Your task to perform on an android device: Open calendar and show me the fourth week of next month Image 0: 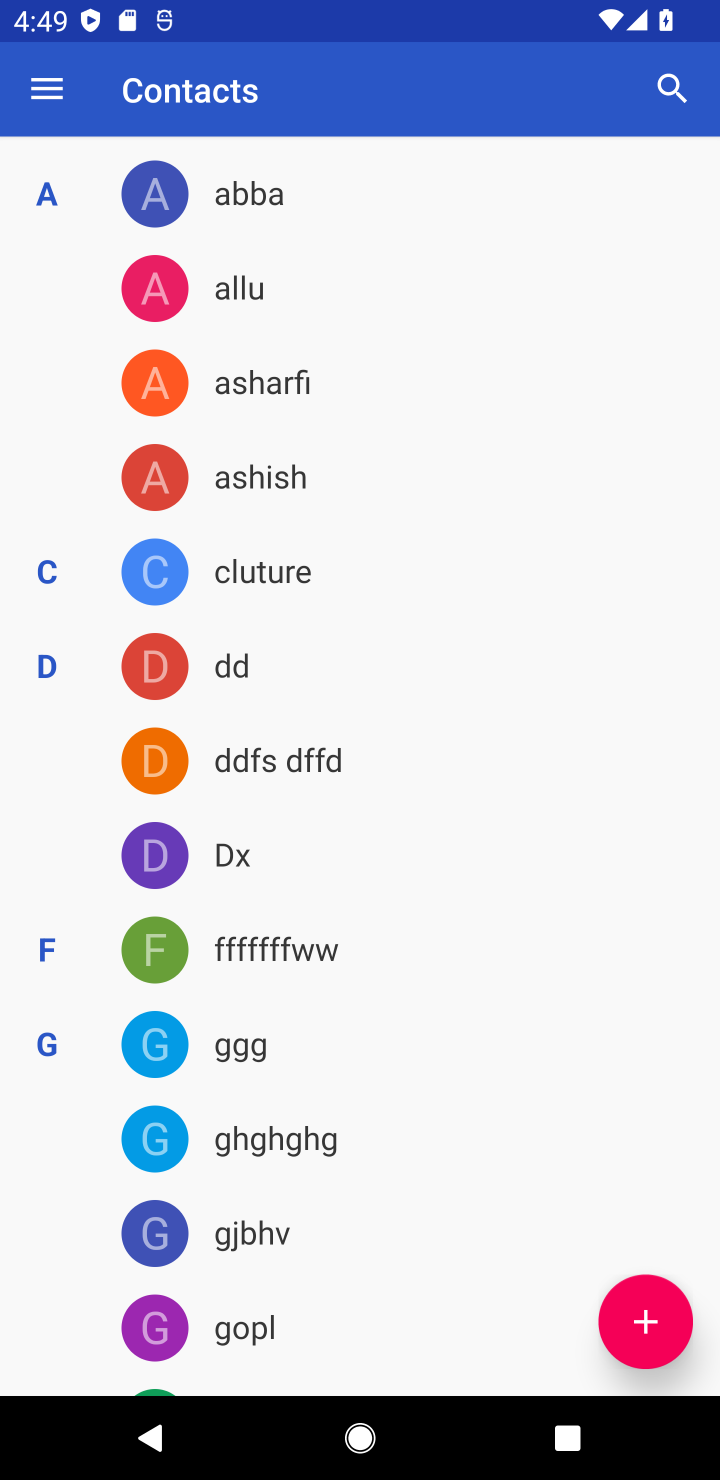
Step 0: press home button
Your task to perform on an android device: Open calendar and show me the fourth week of next month Image 1: 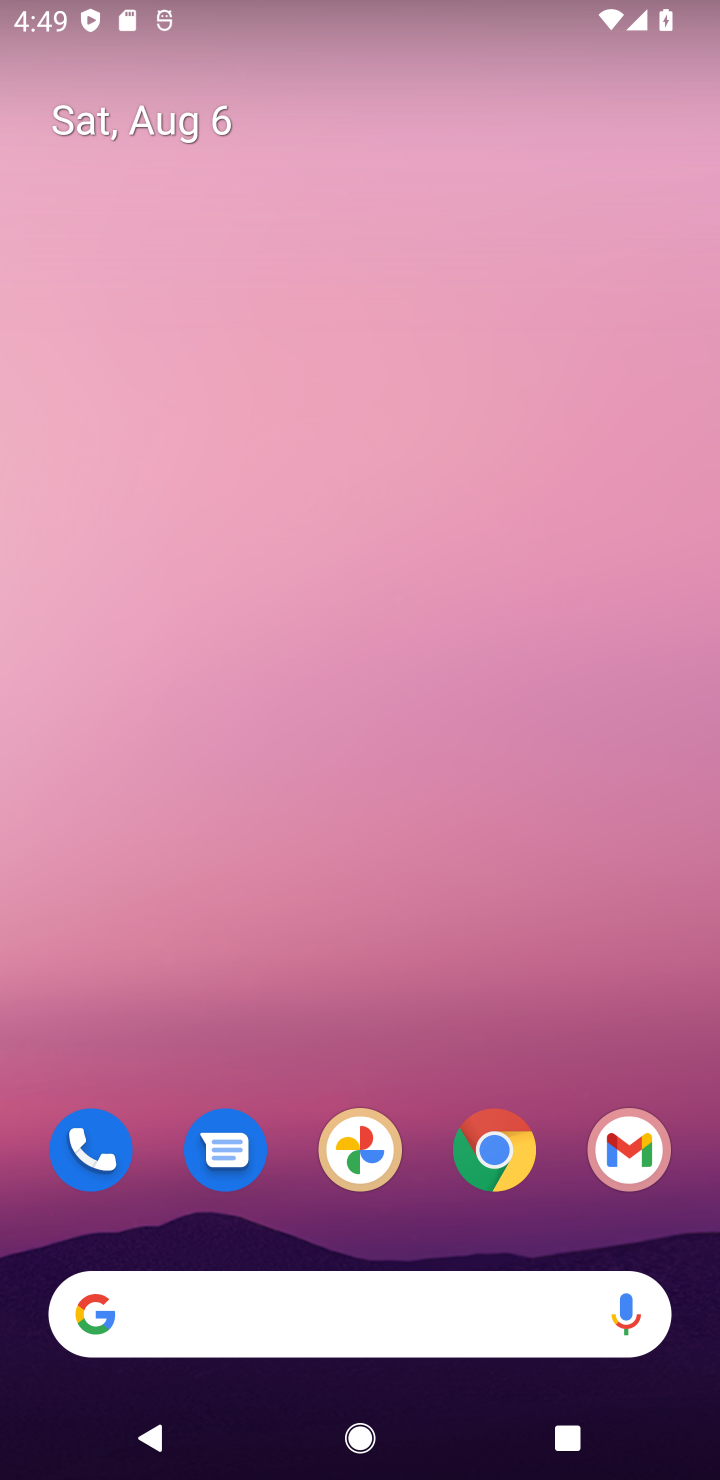
Step 1: drag from (323, 1080) to (405, 80)
Your task to perform on an android device: Open calendar and show me the fourth week of next month Image 2: 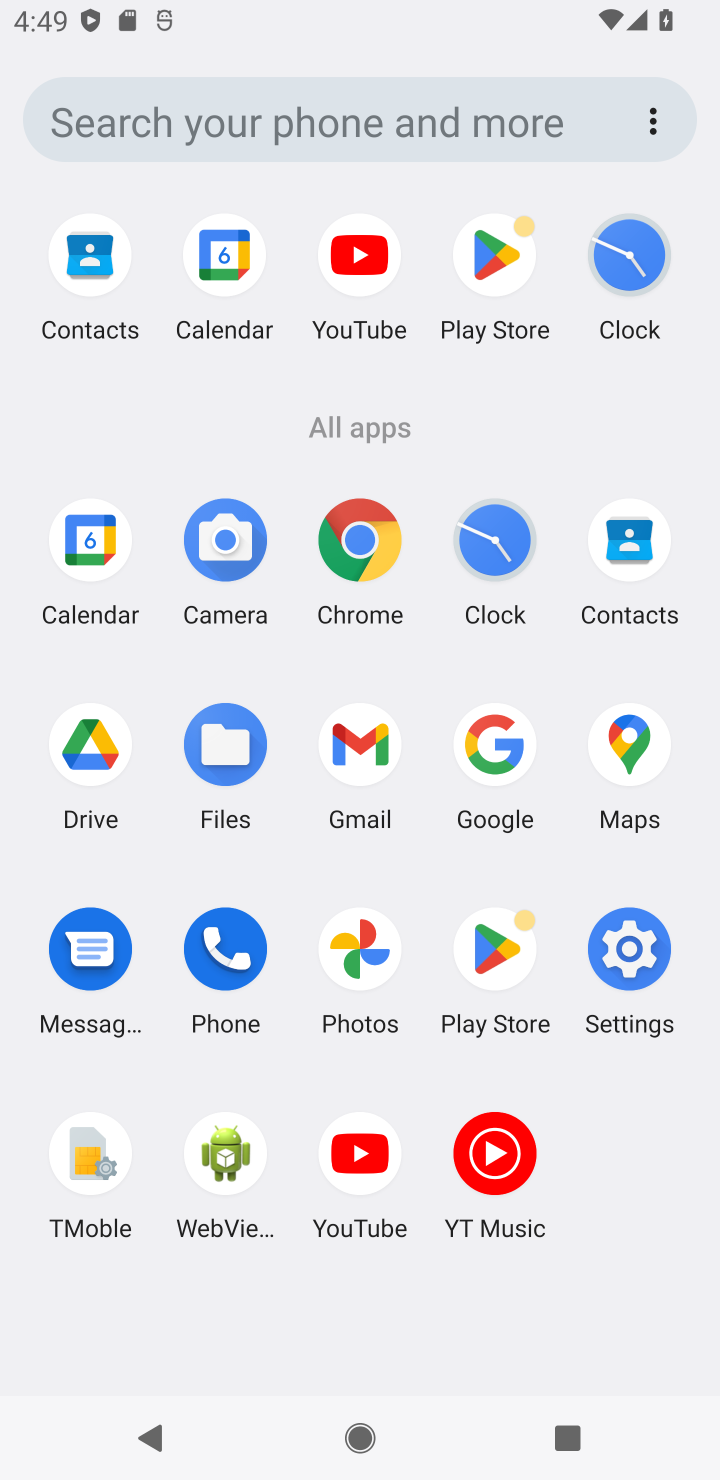
Step 2: click (224, 286)
Your task to perform on an android device: Open calendar and show me the fourth week of next month Image 3: 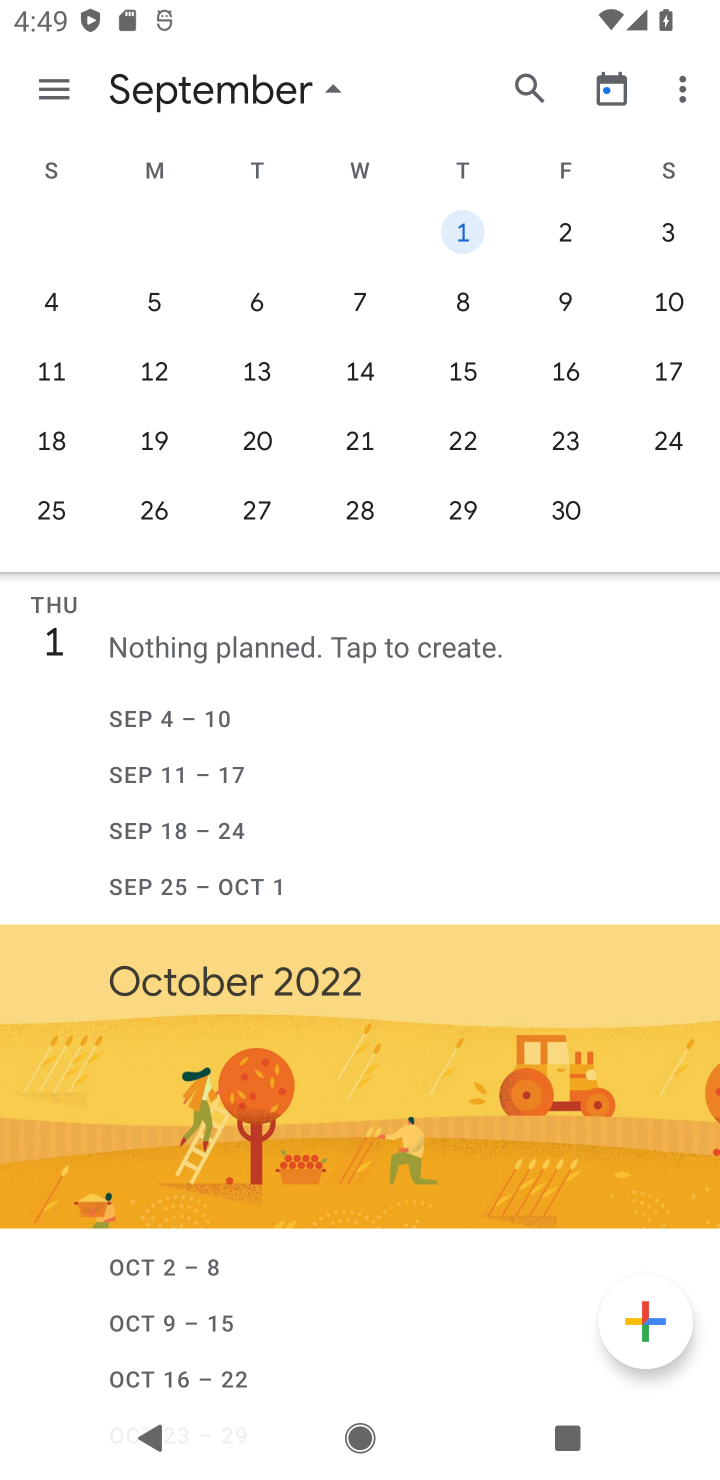
Step 3: click (66, 433)
Your task to perform on an android device: Open calendar and show me the fourth week of next month Image 4: 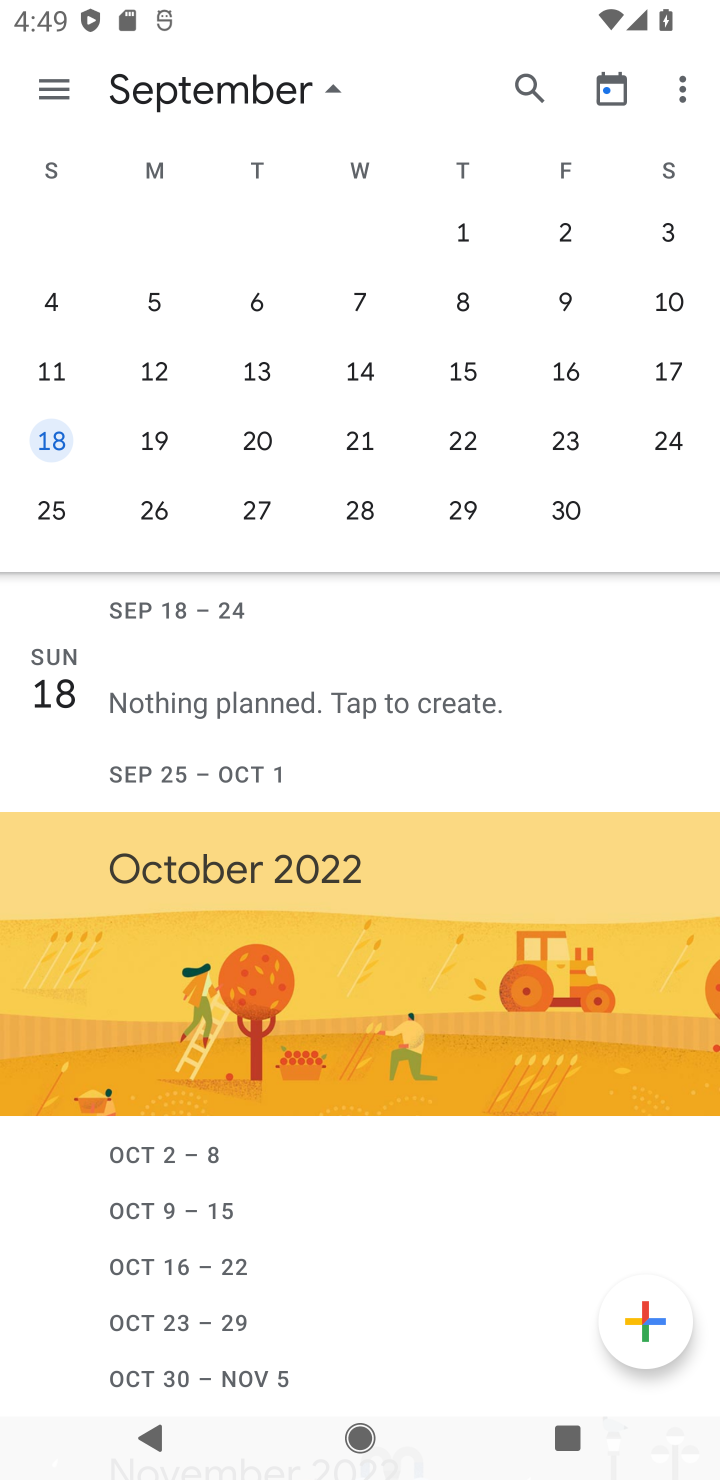
Step 4: task complete